Your task to perform on an android device: show emergency info Image 0: 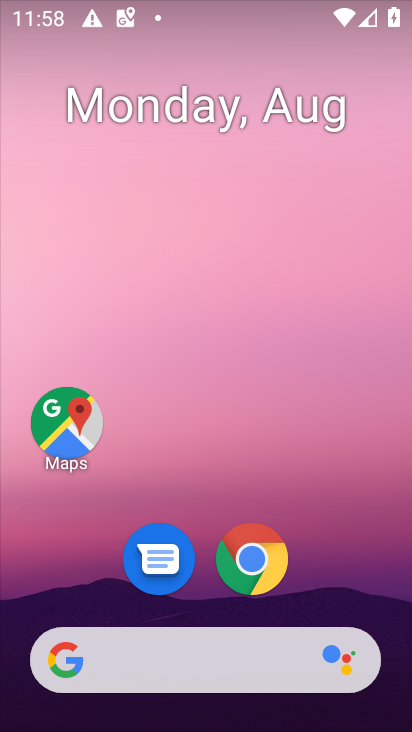
Step 0: drag from (211, 610) to (242, 218)
Your task to perform on an android device: show emergency info Image 1: 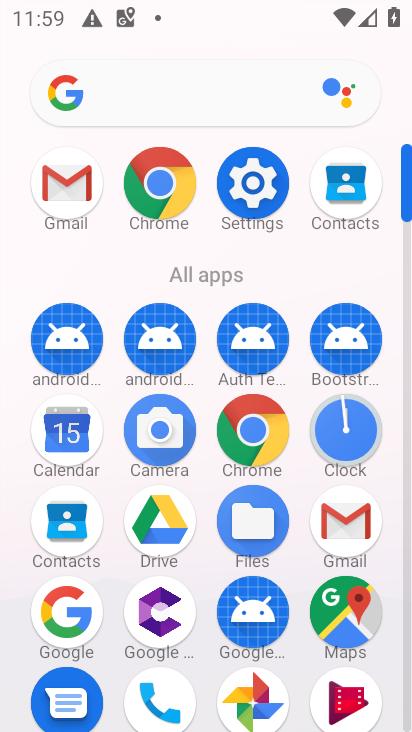
Step 1: click (267, 184)
Your task to perform on an android device: show emergency info Image 2: 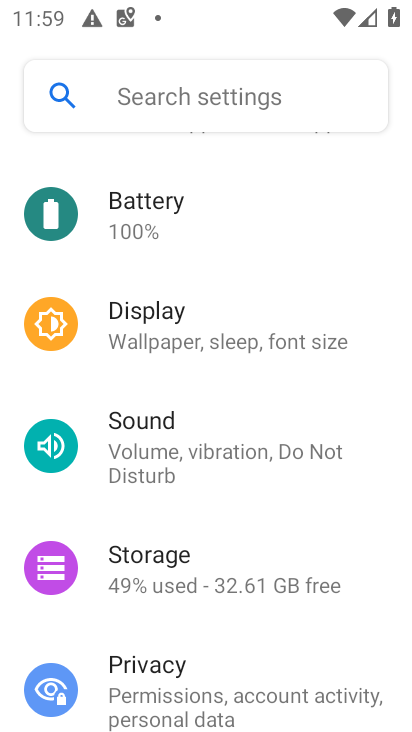
Step 2: drag from (226, 596) to (252, 165)
Your task to perform on an android device: show emergency info Image 3: 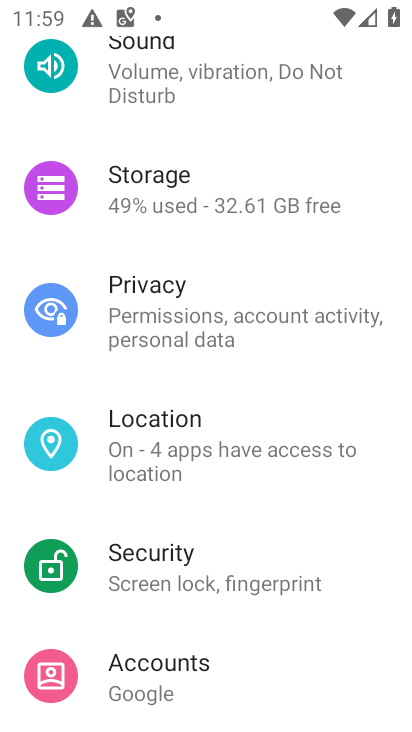
Step 3: drag from (123, 650) to (171, 199)
Your task to perform on an android device: show emergency info Image 4: 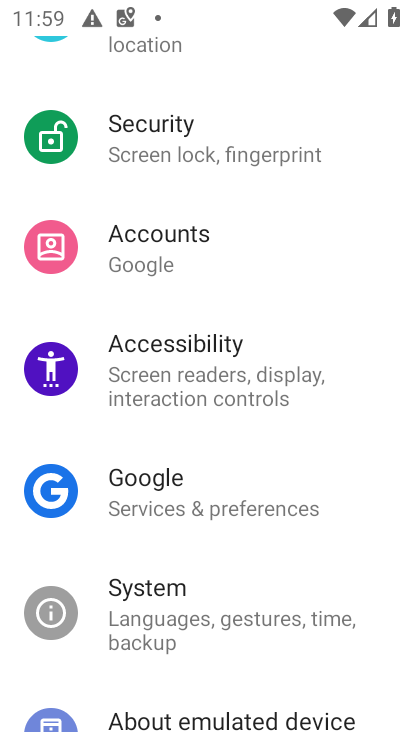
Step 4: drag from (190, 649) to (221, 242)
Your task to perform on an android device: show emergency info Image 5: 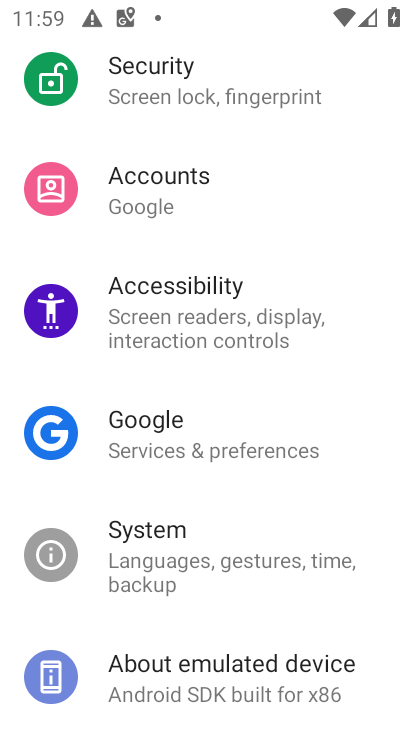
Step 5: drag from (192, 607) to (223, 282)
Your task to perform on an android device: show emergency info Image 6: 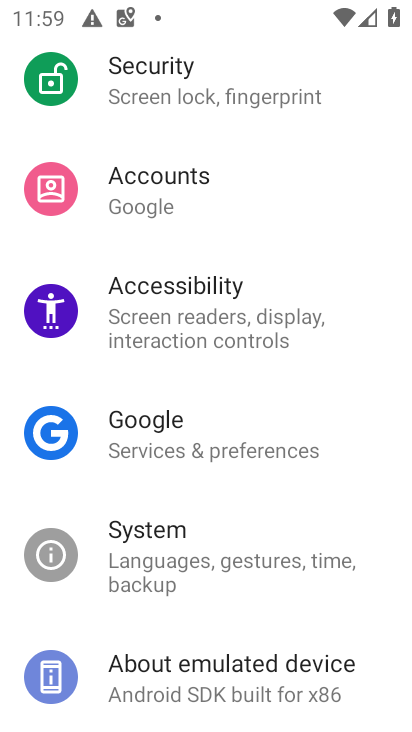
Step 6: click (166, 678)
Your task to perform on an android device: show emergency info Image 7: 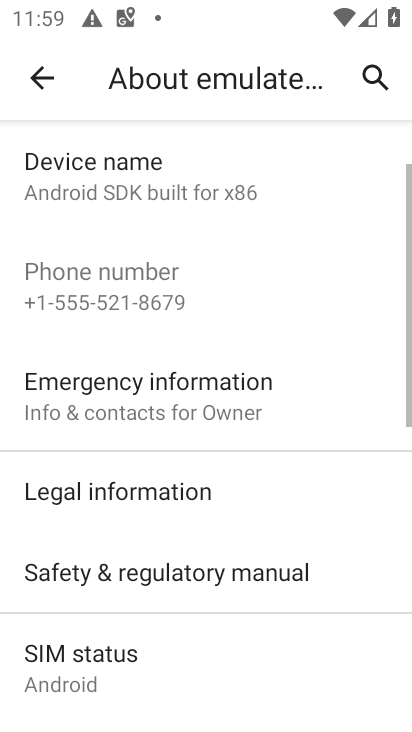
Step 7: click (205, 414)
Your task to perform on an android device: show emergency info Image 8: 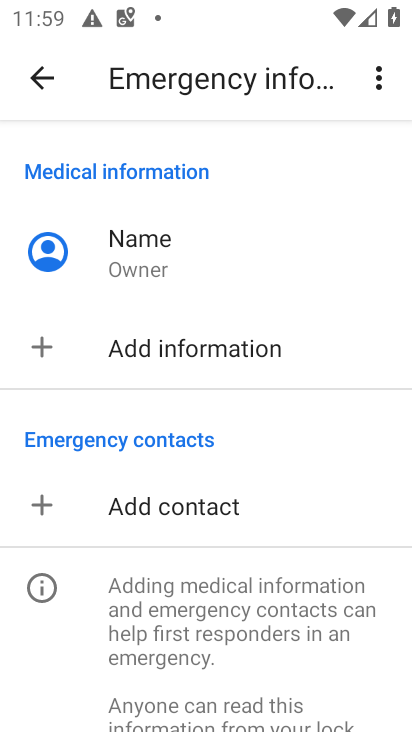
Step 8: task complete